Your task to perform on an android device: check storage Image 0: 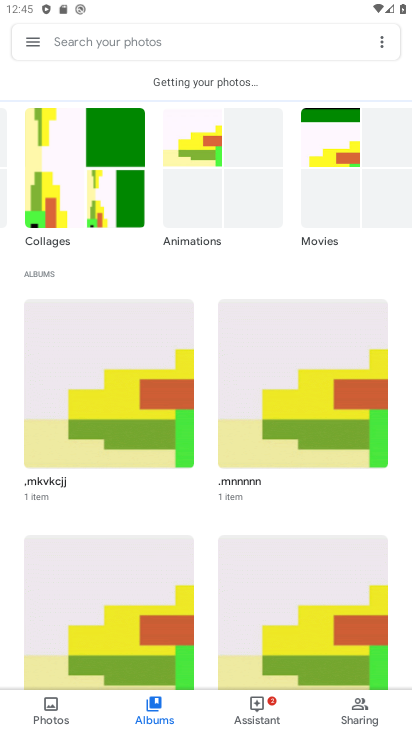
Step 0: press home button
Your task to perform on an android device: check storage Image 1: 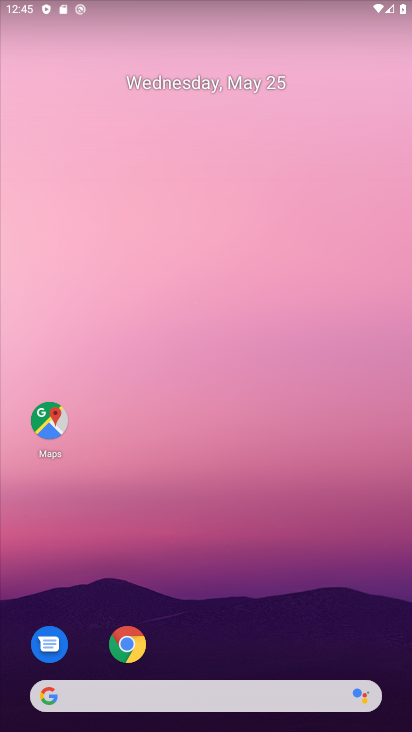
Step 1: drag from (204, 631) to (317, 8)
Your task to perform on an android device: check storage Image 2: 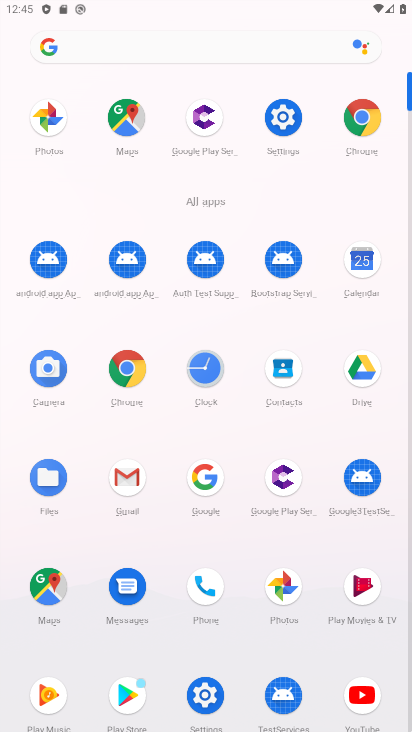
Step 2: click (204, 692)
Your task to perform on an android device: check storage Image 3: 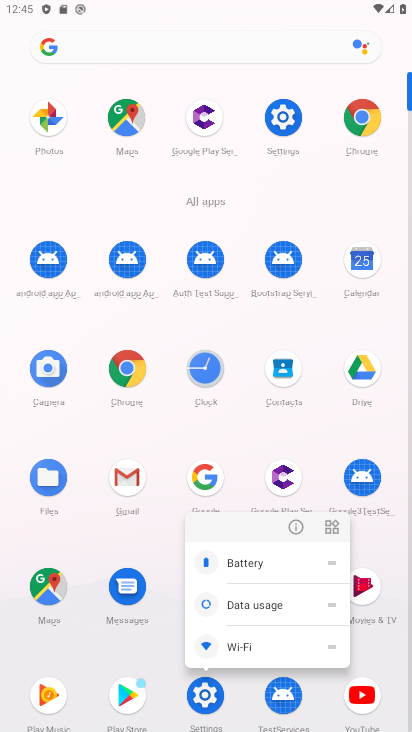
Step 3: click (202, 712)
Your task to perform on an android device: check storage Image 4: 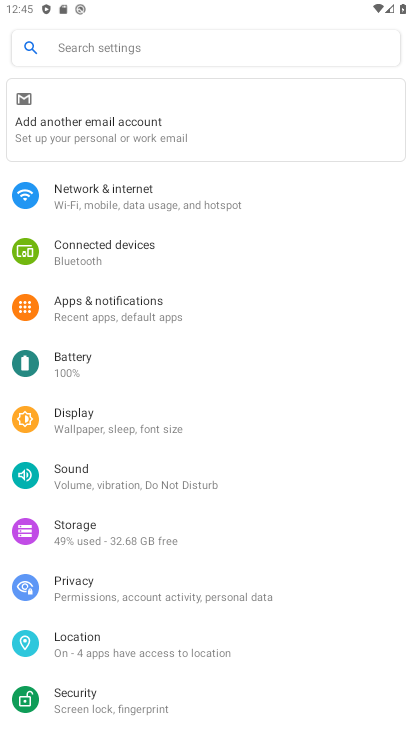
Step 4: click (67, 544)
Your task to perform on an android device: check storage Image 5: 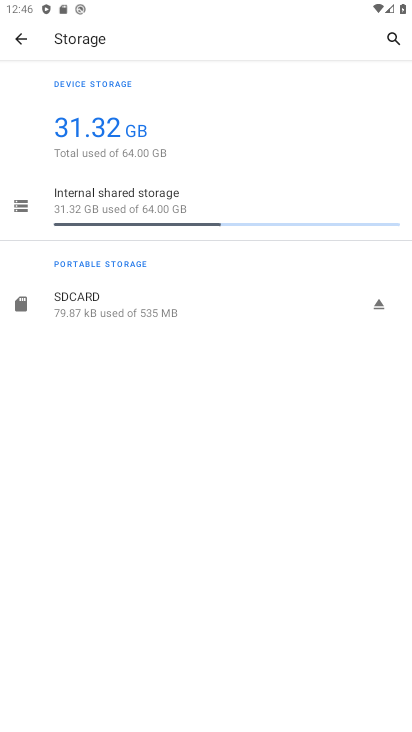
Step 5: task complete